Your task to perform on an android device: Open CNN.com Image 0: 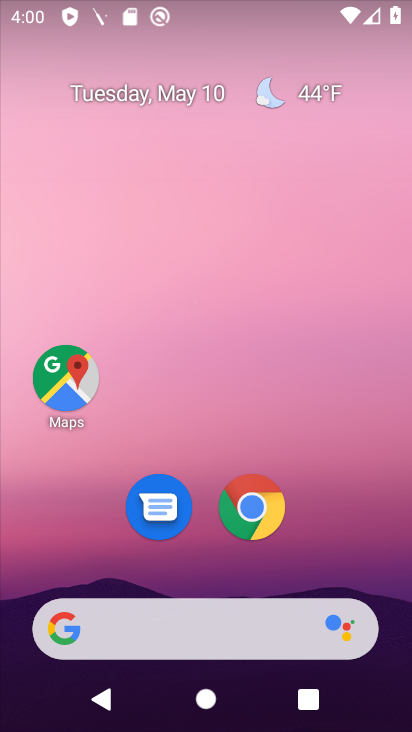
Step 0: click (261, 518)
Your task to perform on an android device: Open CNN.com Image 1: 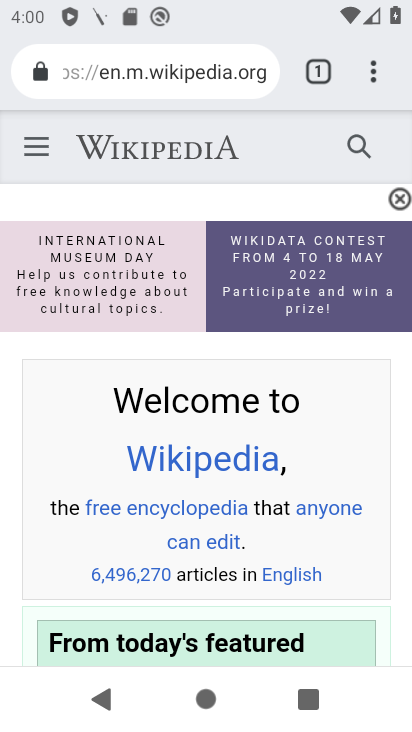
Step 1: click (377, 68)
Your task to perform on an android device: Open CNN.com Image 2: 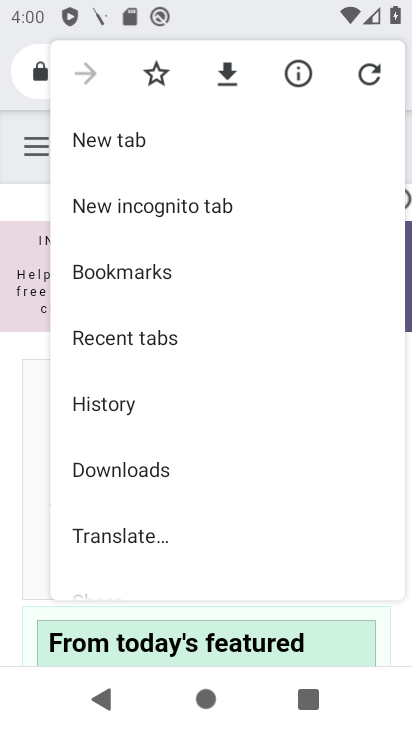
Step 2: click (124, 135)
Your task to perform on an android device: Open CNN.com Image 3: 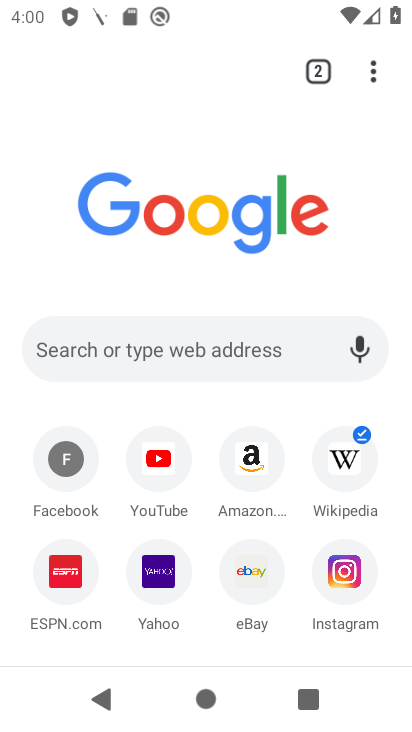
Step 3: click (139, 361)
Your task to perform on an android device: Open CNN.com Image 4: 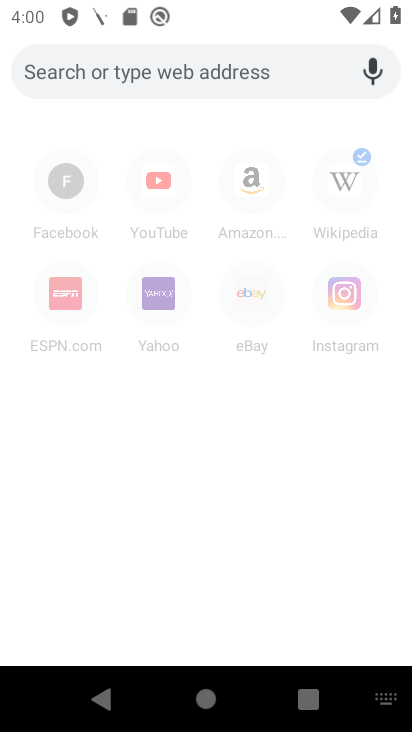
Step 4: type "cnn.com"
Your task to perform on an android device: Open CNN.com Image 5: 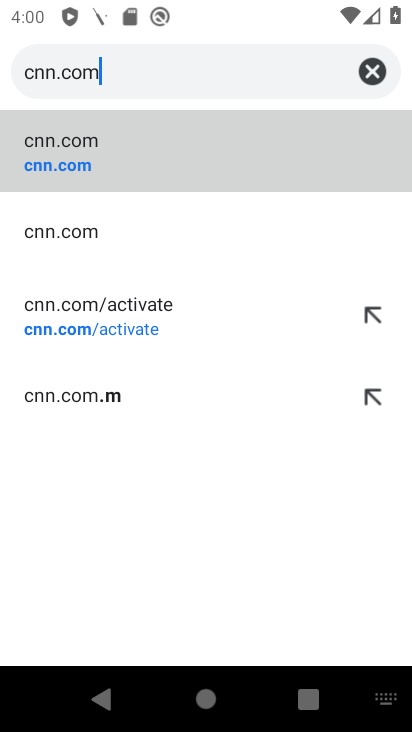
Step 5: click (117, 161)
Your task to perform on an android device: Open CNN.com Image 6: 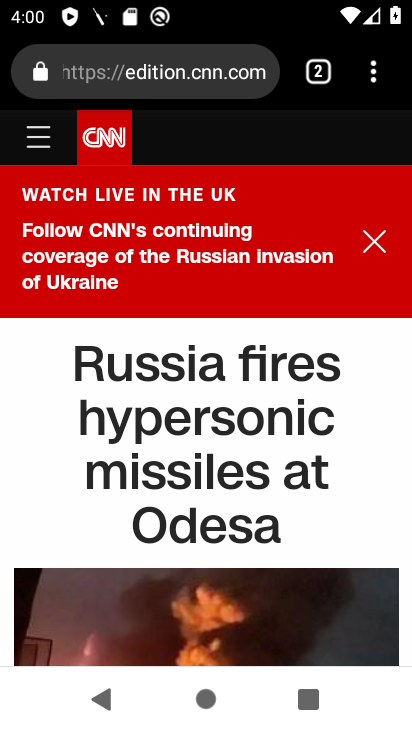
Step 6: task complete